Your task to perform on an android device: find which apps use the phone's location Image 0: 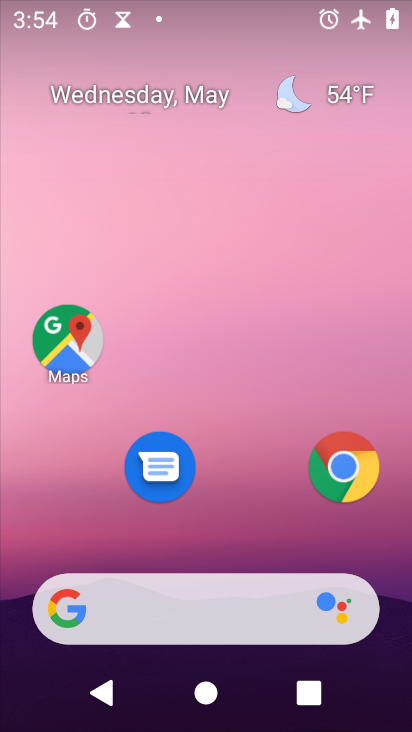
Step 0: drag from (266, 532) to (212, 140)
Your task to perform on an android device: find which apps use the phone's location Image 1: 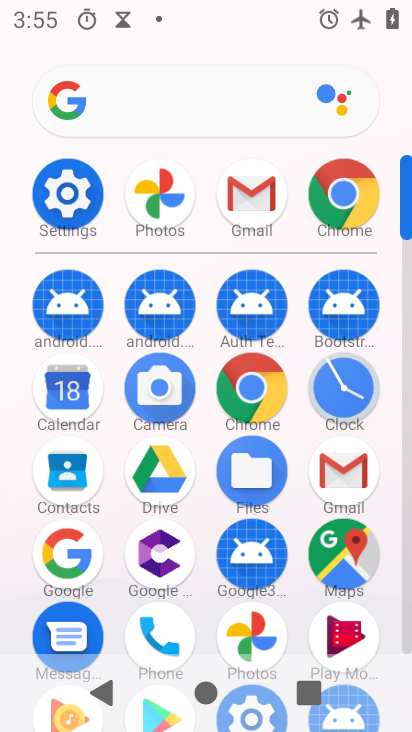
Step 1: click (85, 213)
Your task to perform on an android device: find which apps use the phone's location Image 2: 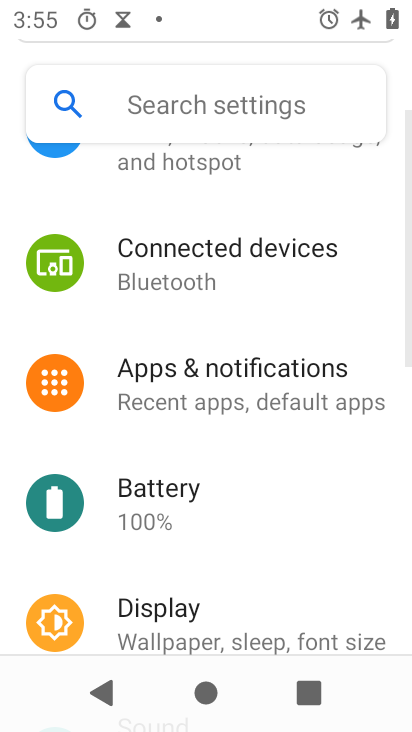
Step 2: drag from (221, 586) to (229, 231)
Your task to perform on an android device: find which apps use the phone's location Image 3: 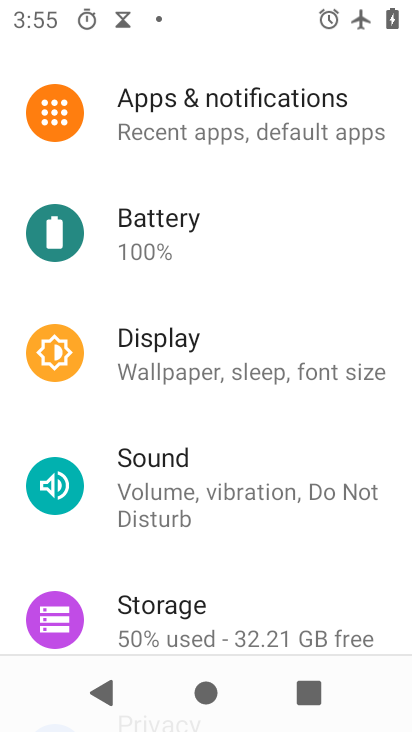
Step 3: drag from (271, 613) to (298, 140)
Your task to perform on an android device: find which apps use the phone's location Image 4: 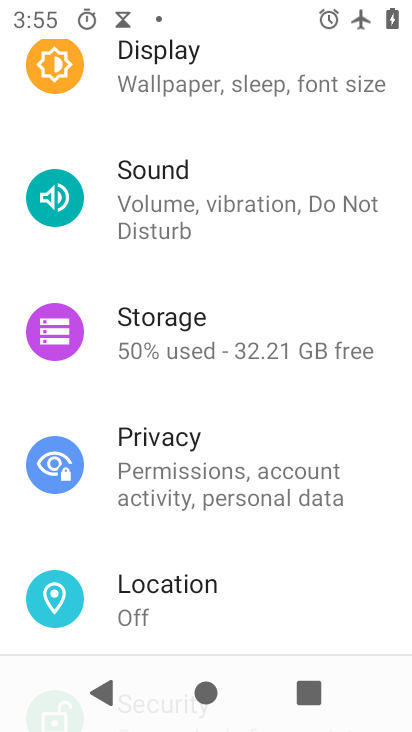
Step 4: click (239, 595)
Your task to perform on an android device: find which apps use the phone's location Image 5: 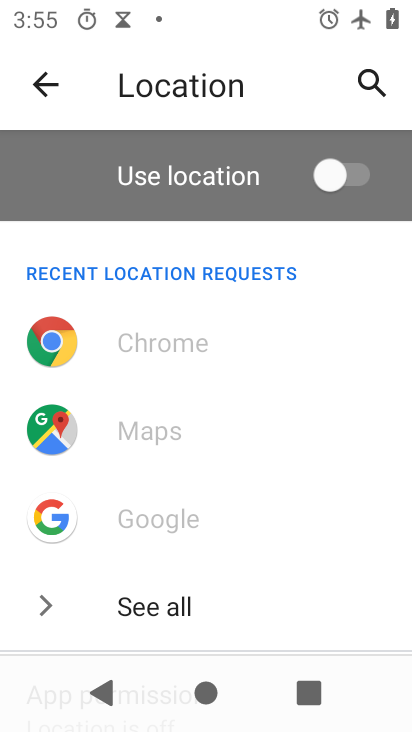
Step 5: drag from (313, 614) to (265, 230)
Your task to perform on an android device: find which apps use the phone's location Image 6: 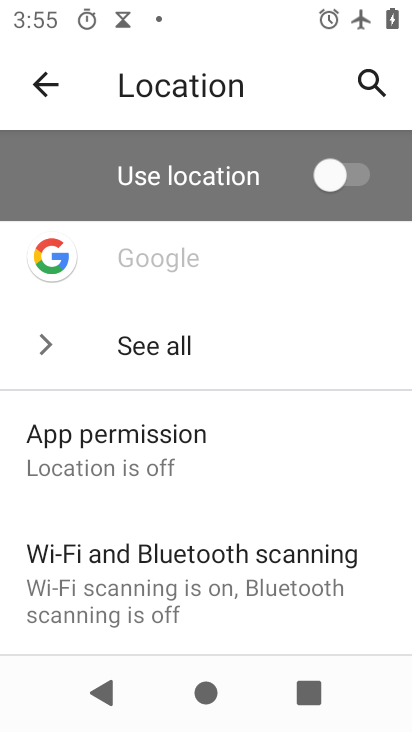
Step 6: click (253, 440)
Your task to perform on an android device: find which apps use the phone's location Image 7: 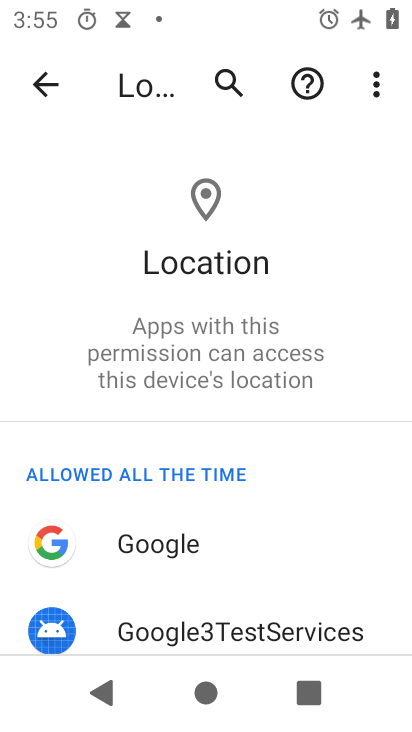
Step 7: task complete